Your task to perform on an android device: Add "macbook pro 13 inch" to the cart on target Image 0: 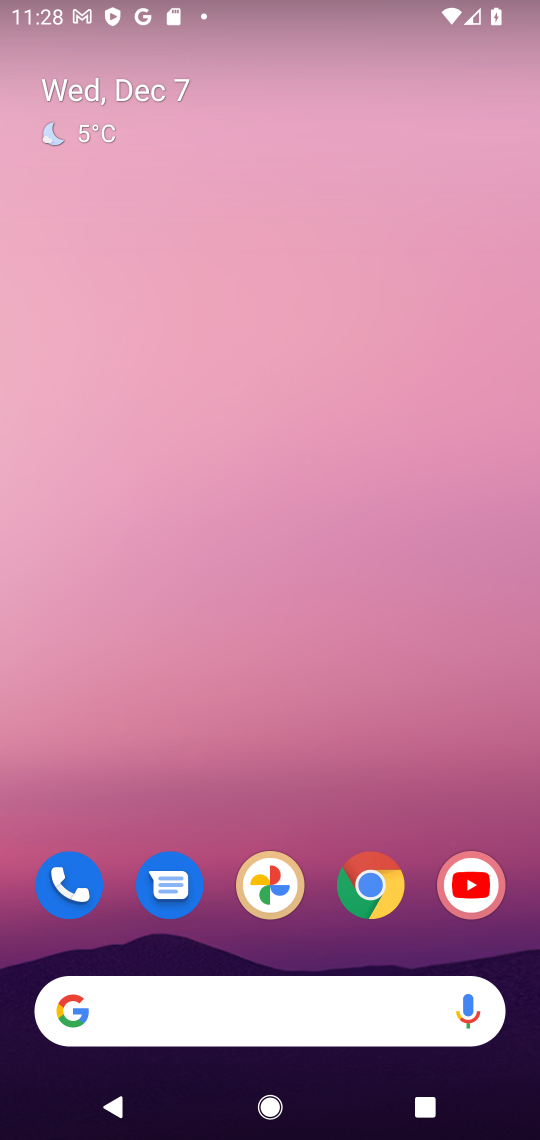
Step 0: click (362, 884)
Your task to perform on an android device: Add "macbook pro 13 inch" to the cart on target Image 1: 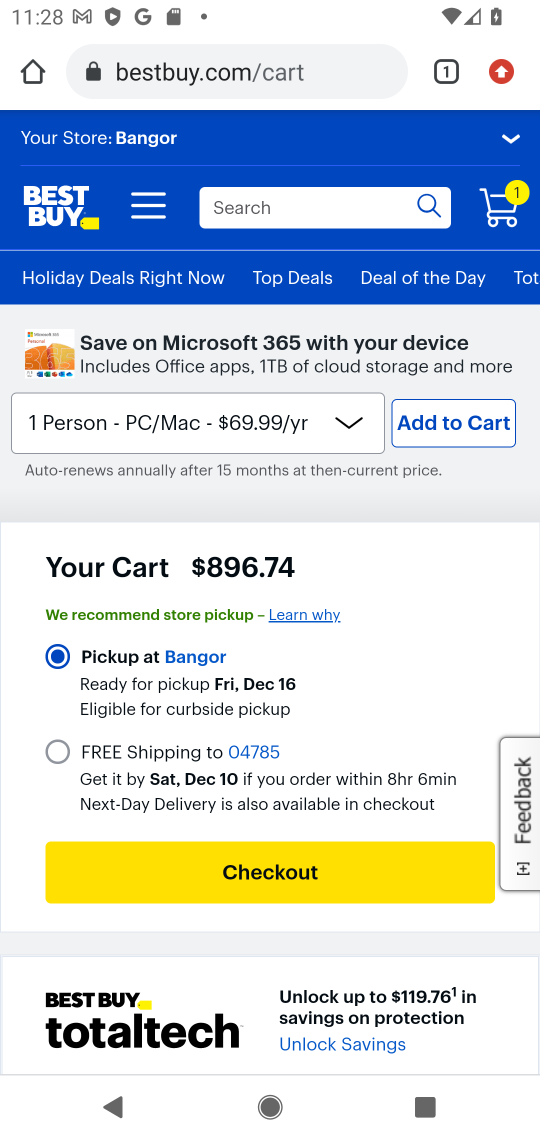
Step 1: click (290, 68)
Your task to perform on an android device: Add "macbook pro 13 inch" to the cart on target Image 2: 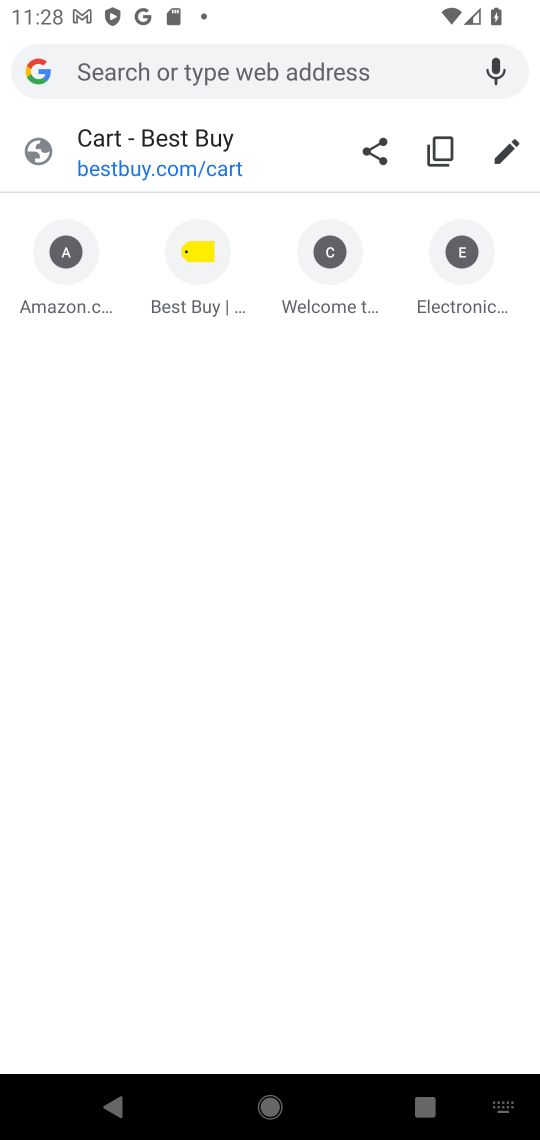
Step 2: type "TARGET"
Your task to perform on an android device: Add "macbook pro 13 inch" to the cart on target Image 3: 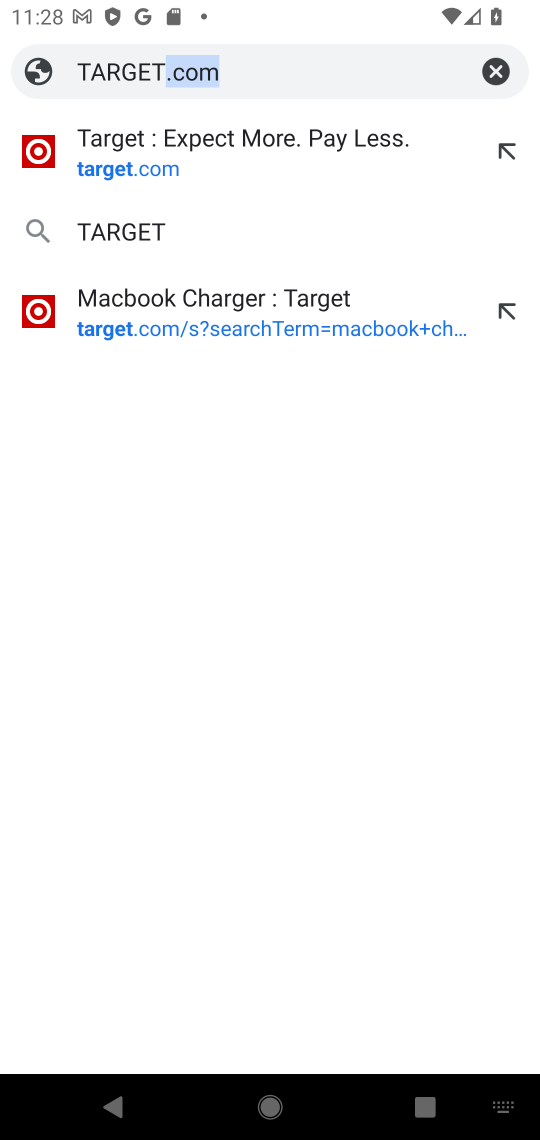
Step 3: click (128, 151)
Your task to perform on an android device: Add "macbook pro 13 inch" to the cart on target Image 4: 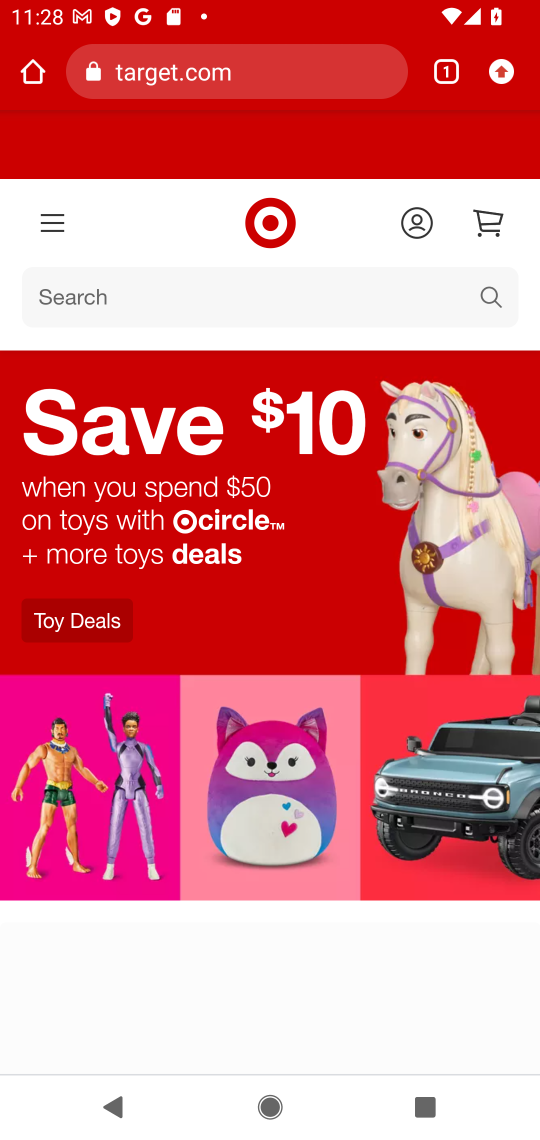
Step 4: click (273, 287)
Your task to perform on an android device: Add "macbook pro 13 inch" to the cart on target Image 5: 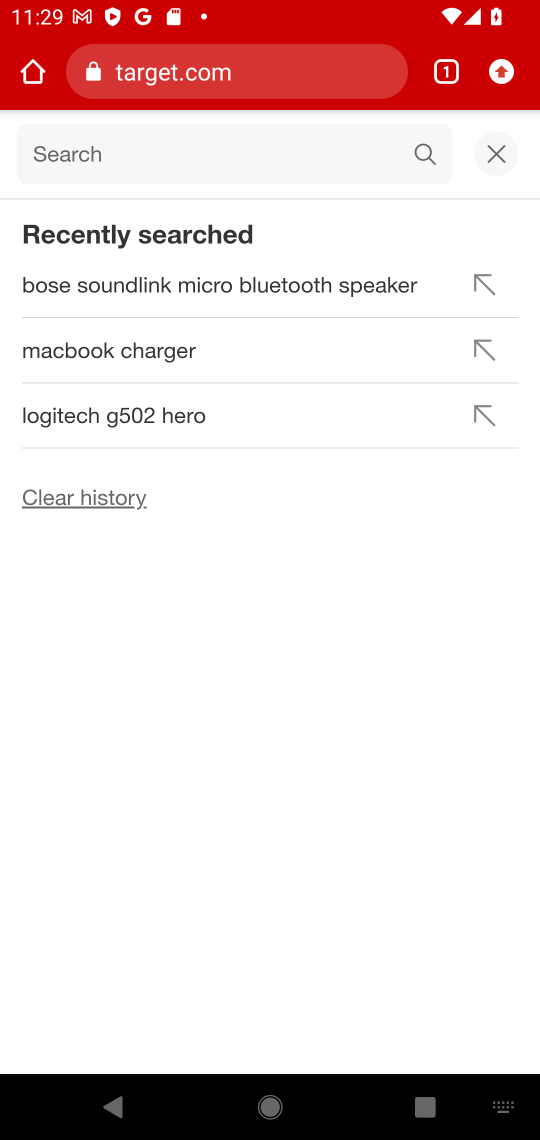
Step 5: type "MACBOOK PRO 13 INCH"
Your task to perform on an android device: Add "macbook pro 13 inch" to the cart on target Image 6: 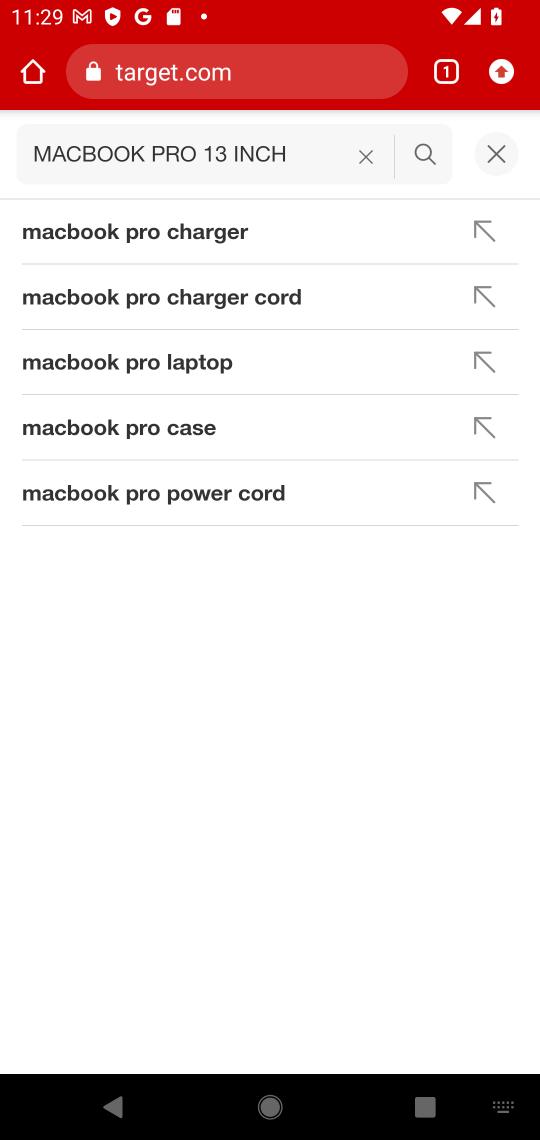
Step 6: click (125, 237)
Your task to perform on an android device: Add "macbook pro 13 inch" to the cart on target Image 7: 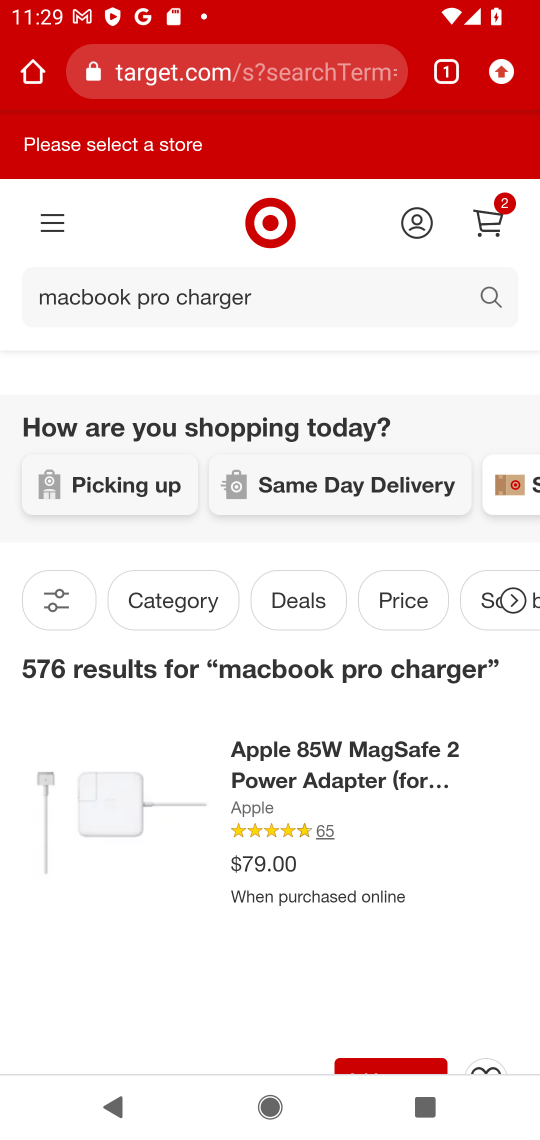
Step 7: click (414, 801)
Your task to perform on an android device: Add "macbook pro 13 inch" to the cart on target Image 8: 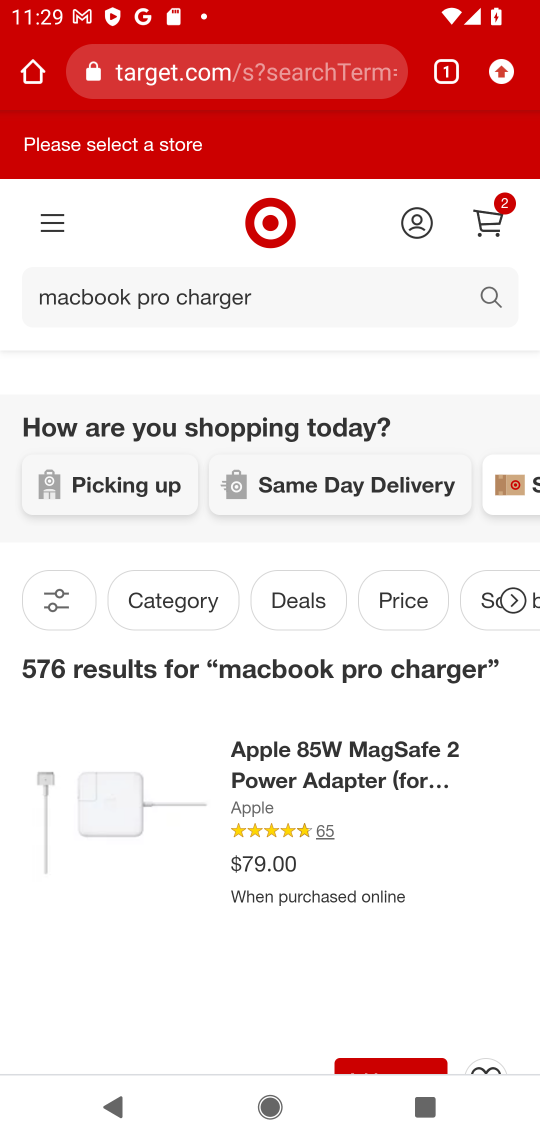
Step 8: click (117, 817)
Your task to perform on an android device: Add "macbook pro 13 inch" to the cart on target Image 9: 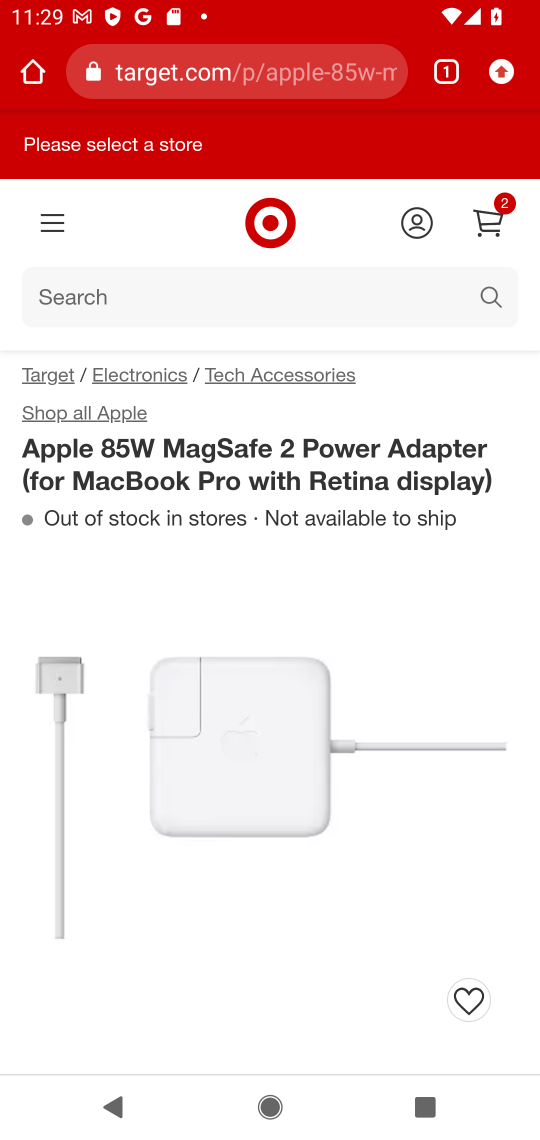
Step 9: task complete